Your task to perform on an android device: change keyboard looks Image 0: 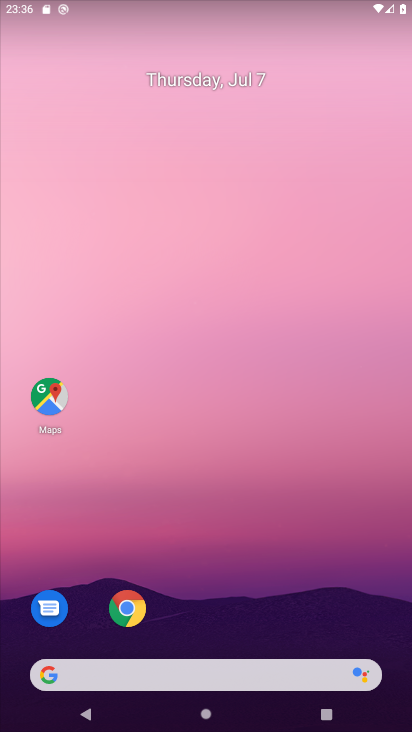
Step 0: drag from (240, 629) to (267, 183)
Your task to perform on an android device: change keyboard looks Image 1: 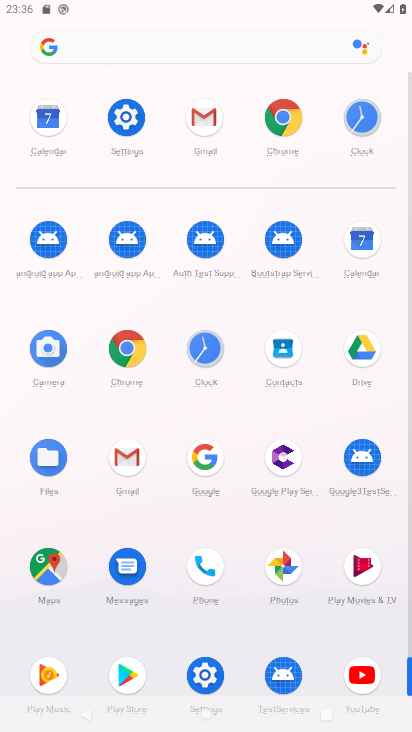
Step 1: click (133, 114)
Your task to perform on an android device: change keyboard looks Image 2: 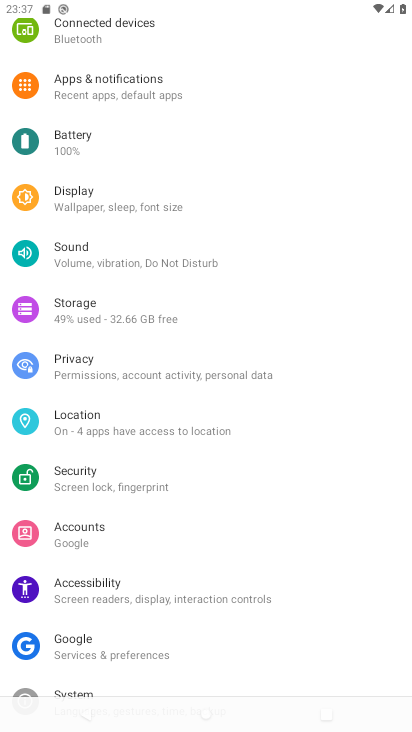
Step 2: drag from (119, 612) to (108, 296)
Your task to perform on an android device: change keyboard looks Image 3: 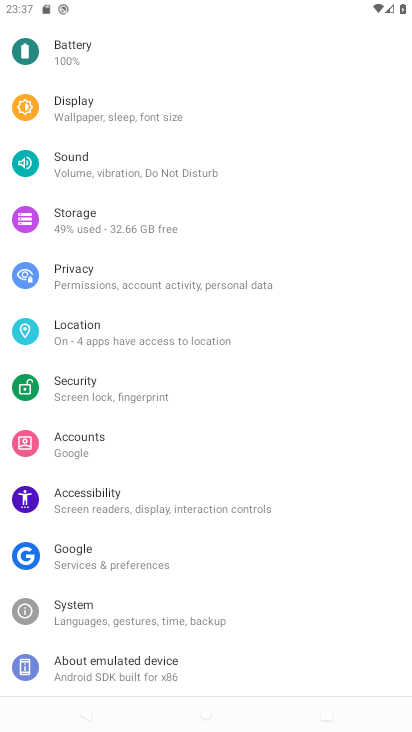
Step 3: click (142, 623)
Your task to perform on an android device: change keyboard looks Image 4: 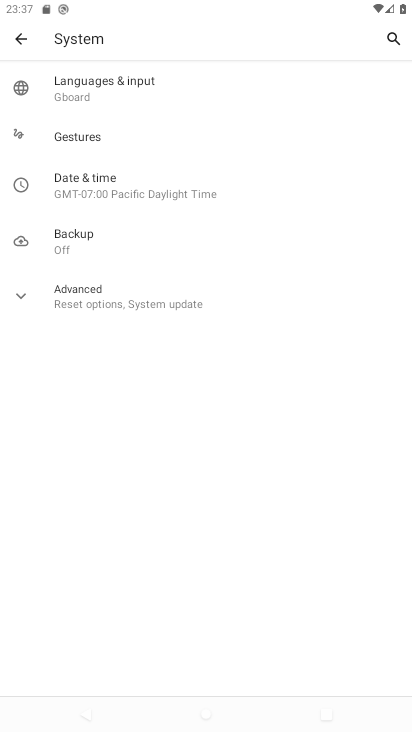
Step 4: click (103, 87)
Your task to perform on an android device: change keyboard looks Image 5: 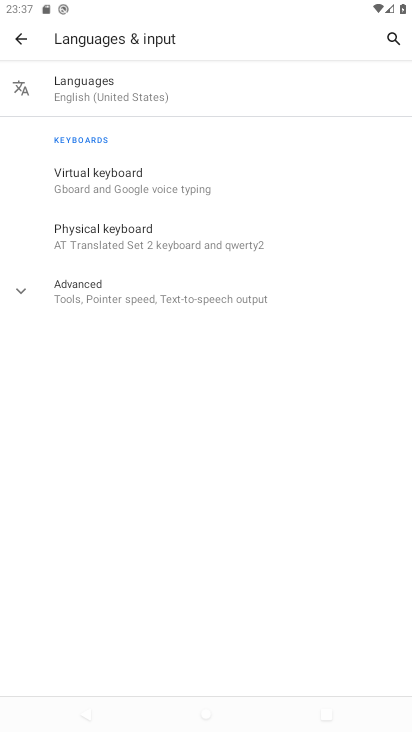
Step 5: click (103, 79)
Your task to perform on an android device: change keyboard looks Image 6: 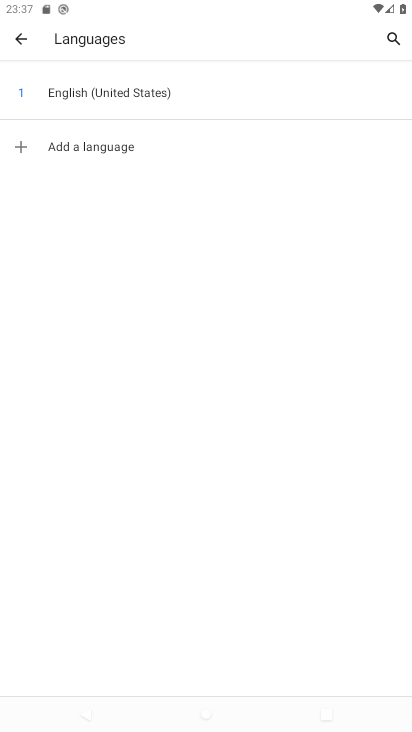
Step 6: click (17, 25)
Your task to perform on an android device: change keyboard looks Image 7: 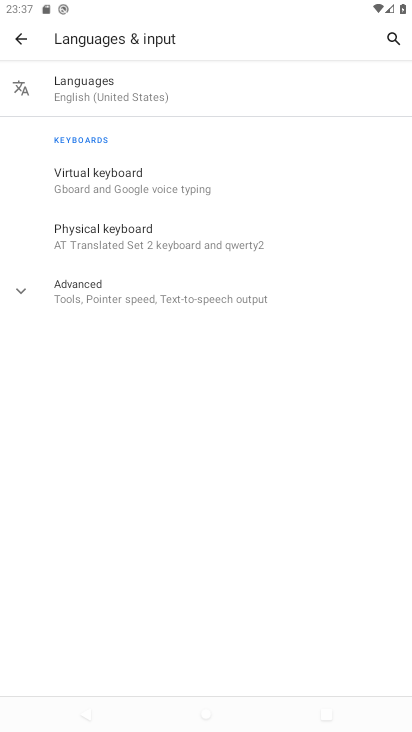
Step 7: click (161, 184)
Your task to perform on an android device: change keyboard looks Image 8: 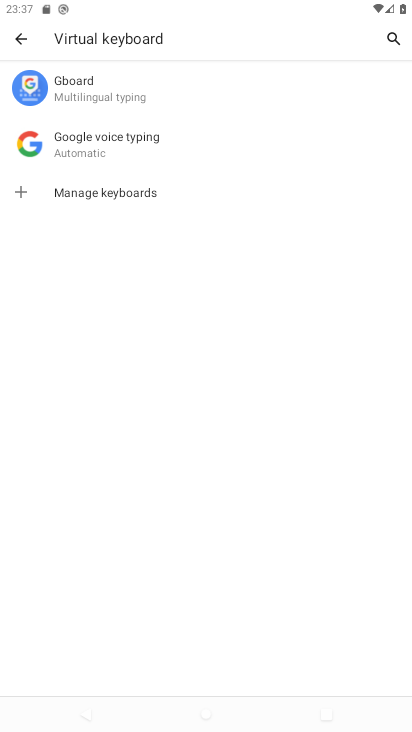
Step 8: click (153, 83)
Your task to perform on an android device: change keyboard looks Image 9: 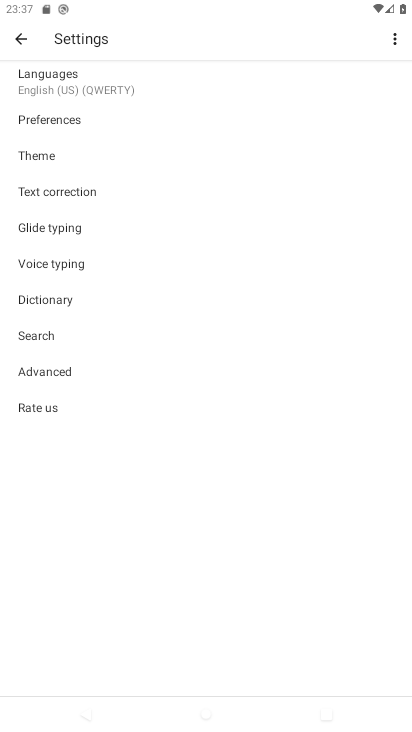
Step 9: click (53, 152)
Your task to perform on an android device: change keyboard looks Image 10: 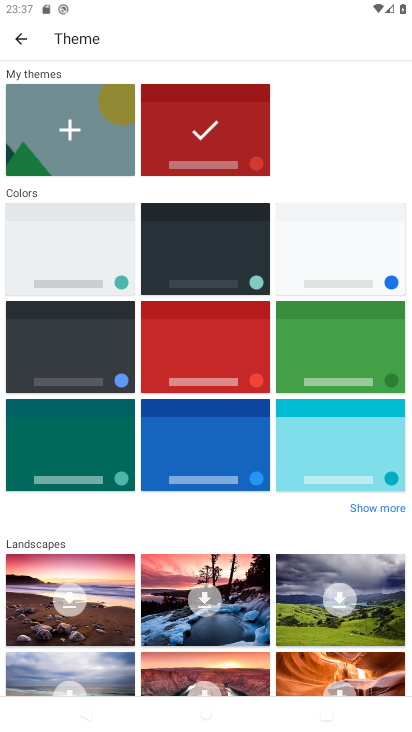
Step 10: click (321, 443)
Your task to perform on an android device: change keyboard looks Image 11: 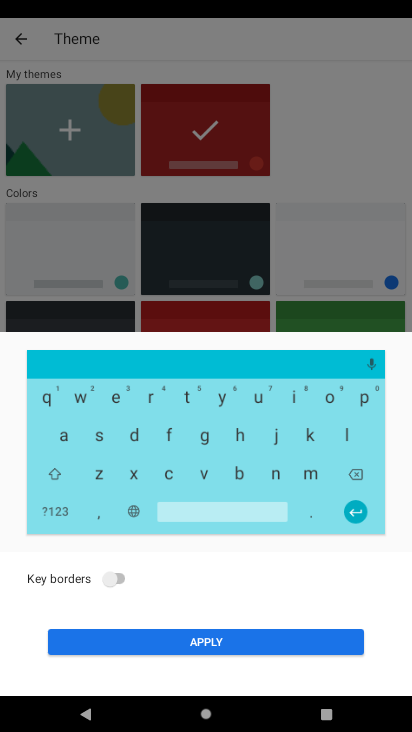
Step 11: click (253, 640)
Your task to perform on an android device: change keyboard looks Image 12: 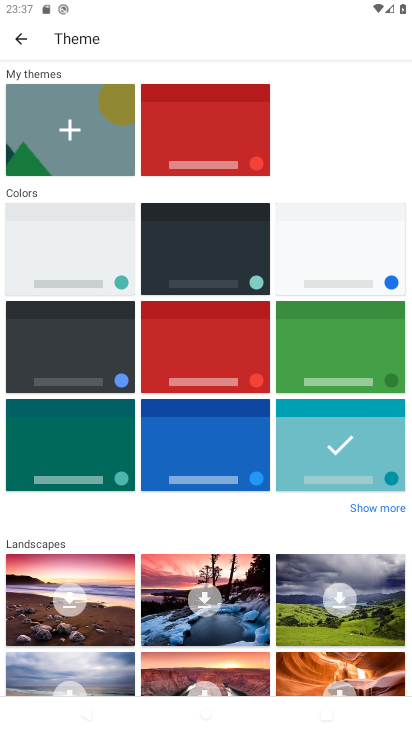
Step 12: task complete